Your task to perform on an android device: Show me recent news Image 0: 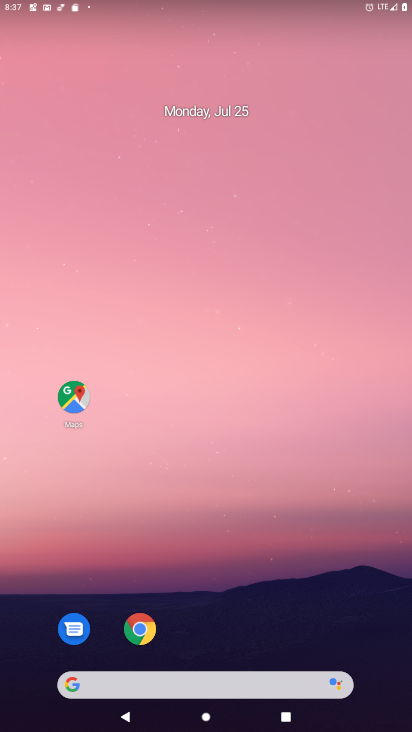
Step 0: drag from (201, 683) to (252, 147)
Your task to perform on an android device: Show me recent news Image 1: 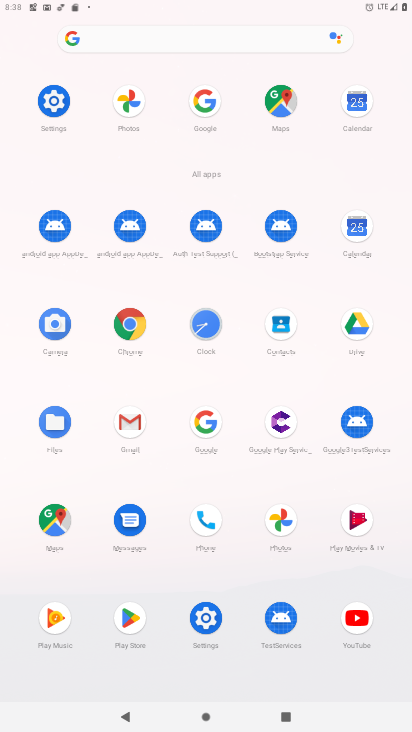
Step 1: click (132, 323)
Your task to perform on an android device: Show me recent news Image 2: 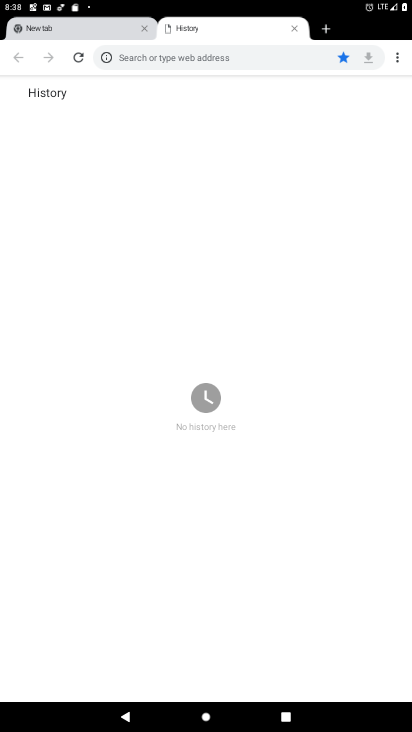
Step 2: click (276, 56)
Your task to perform on an android device: Show me recent news Image 3: 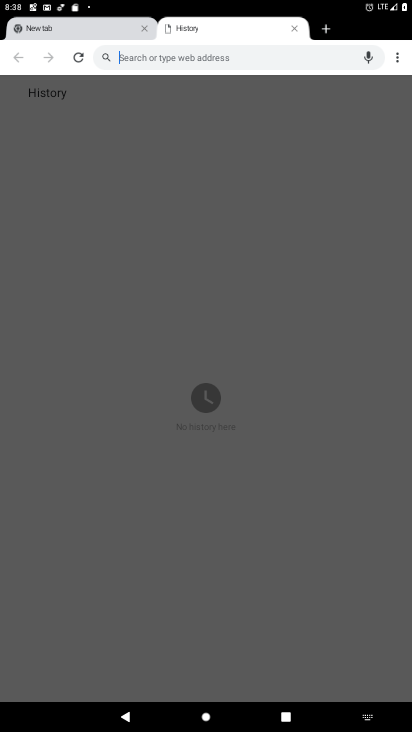
Step 3: type "recent news"
Your task to perform on an android device: Show me recent news Image 4: 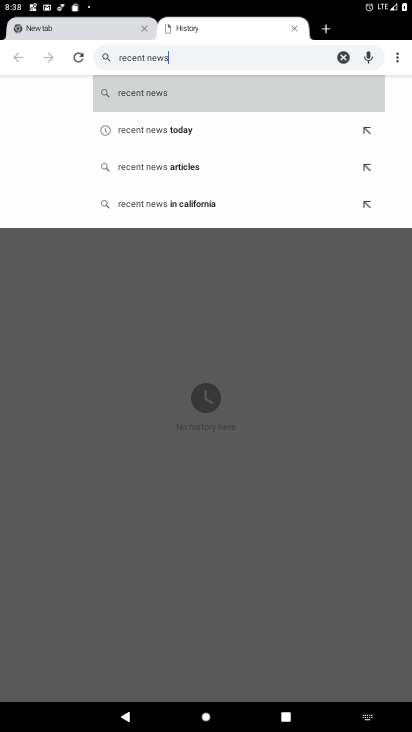
Step 4: click (185, 96)
Your task to perform on an android device: Show me recent news Image 5: 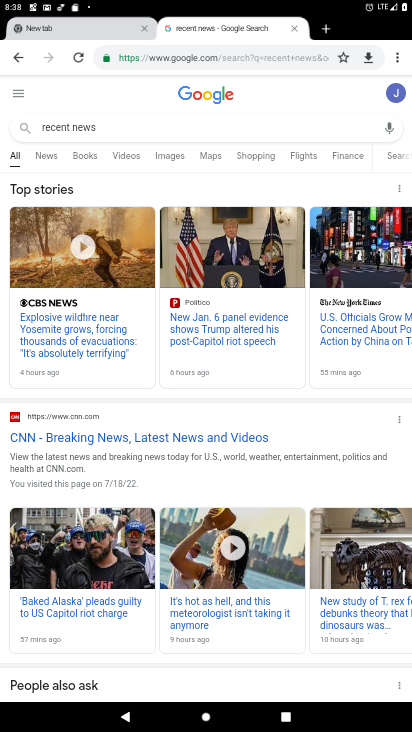
Step 5: task complete